Your task to perform on an android device: make emails show in primary in the gmail app Image 0: 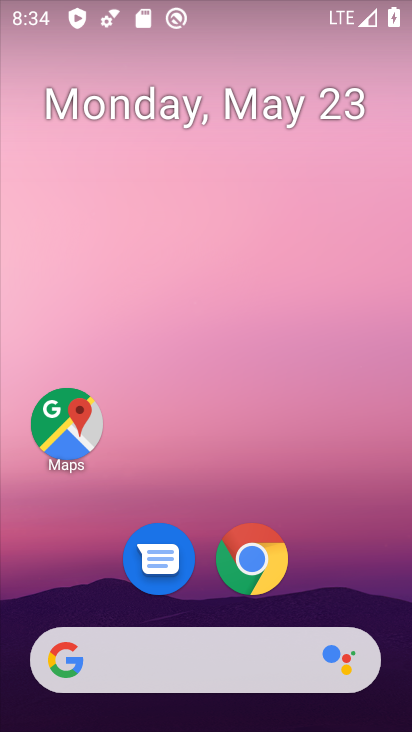
Step 0: drag from (333, 601) to (329, 6)
Your task to perform on an android device: make emails show in primary in the gmail app Image 1: 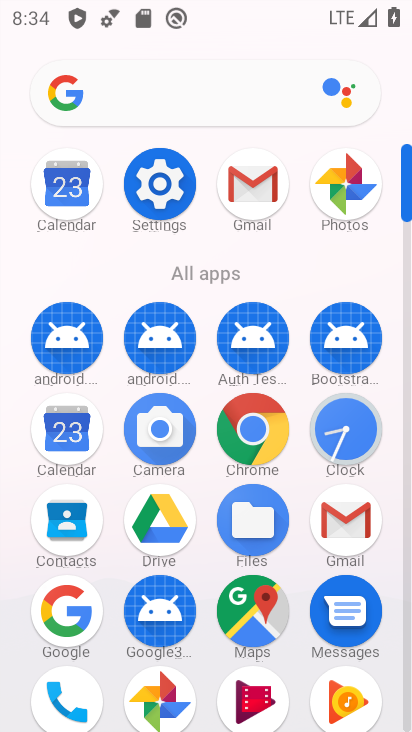
Step 1: click (248, 179)
Your task to perform on an android device: make emails show in primary in the gmail app Image 2: 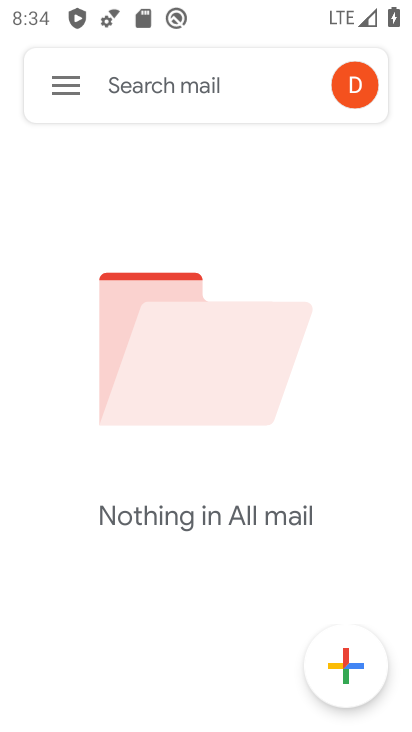
Step 2: click (62, 88)
Your task to perform on an android device: make emails show in primary in the gmail app Image 3: 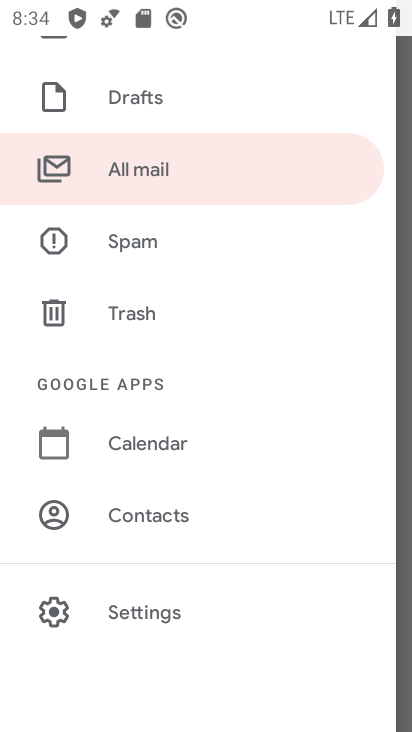
Step 3: click (114, 617)
Your task to perform on an android device: make emails show in primary in the gmail app Image 4: 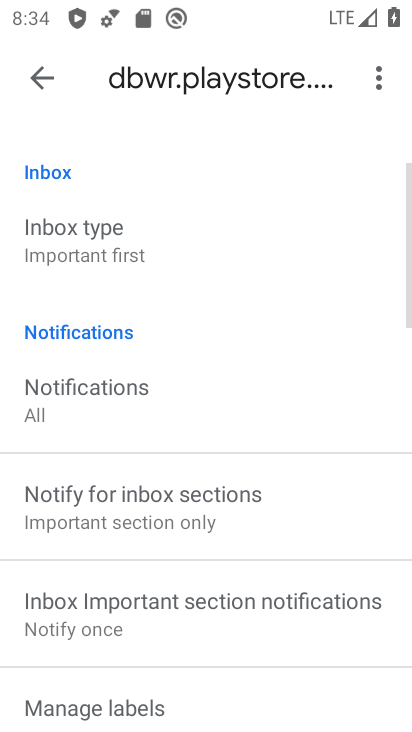
Step 4: click (107, 244)
Your task to perform on an android device: make emails show in primary in the gmail app Image 5: 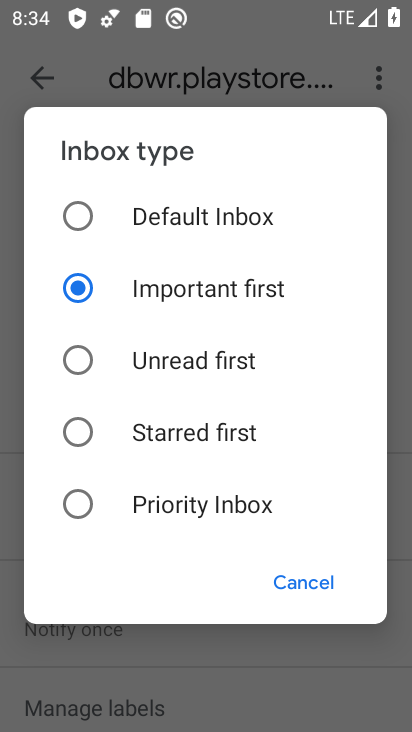
Step 5: click (117, 204)
Your task to perform on an android device: make emails show in primary in the gmail app Image 6: 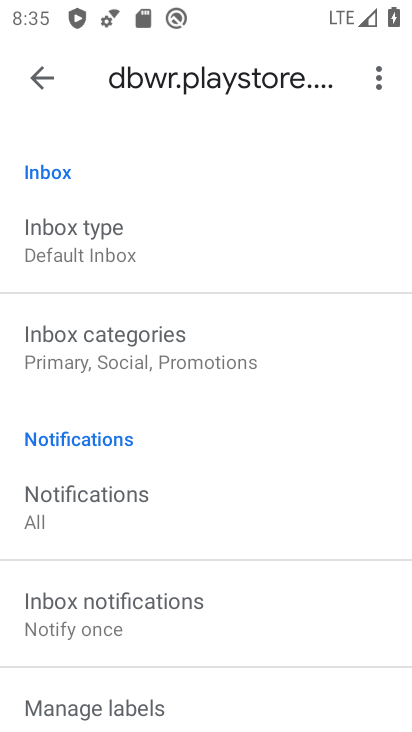
Step 6: task complete